Your task to perform on an android device: Search for hotels in Boston Image 0: 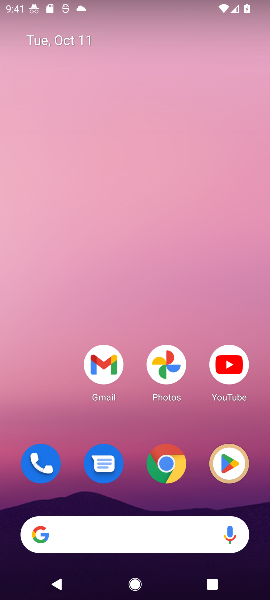
Step 0: drag from (179, 544) to (169, 214)
Your task to perform on an android device: Search for hotels in Boston Image 1: 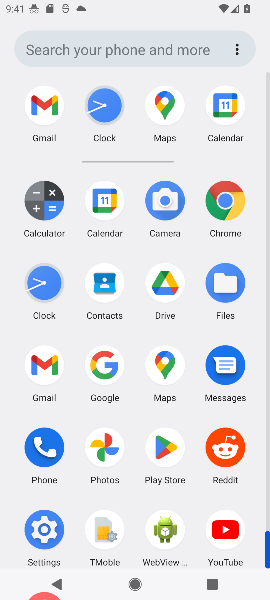
Step 1: click (98, 358)
Your task to perform on an android device: Search for hotels in Boston Image 2: 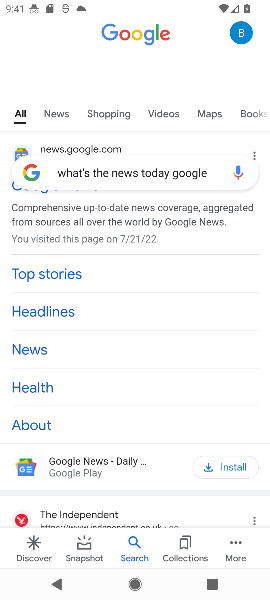
Step 2: click (147, 176)
Your task to perform on an android device: Search for hotels in Boston Image 3: 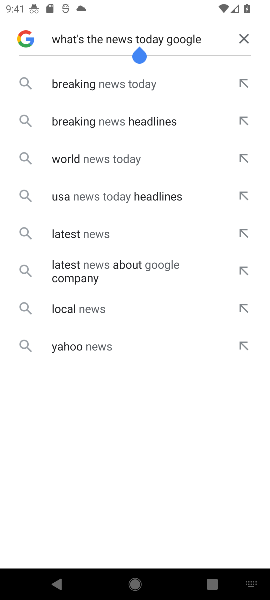
Step 3: click (243, 35)
Your task to perform on an android device: Search for hotels in Boston Image 4: 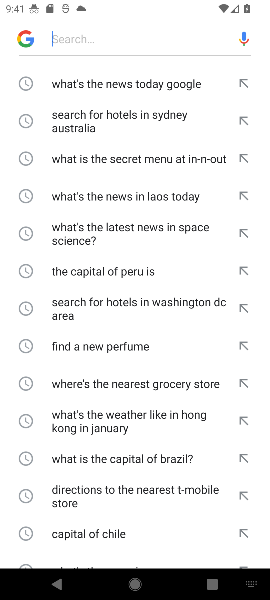
Step 4: click (139, 19)
Your task to perform on an android device: Search for hotels in Boston Image 5: 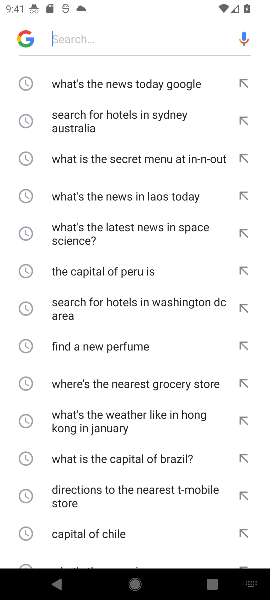
Step 5: type "Search for hotels in Boston "
Your task to perform on an android device: Search for hotels in Boston Image 6: 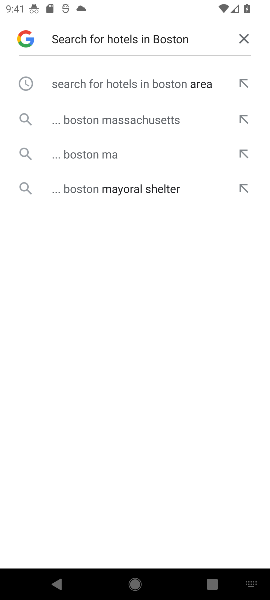
Step 6: click (108, 82)
Your task to perform on an android device: Search for hotels in Boston Image 7: 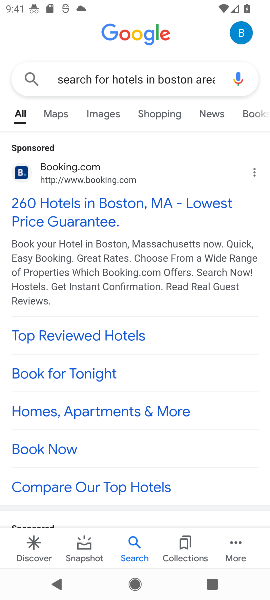
Step 7: click (134, 202)
Your task to perform on an android device: Search for hotels in Boston Image 8: 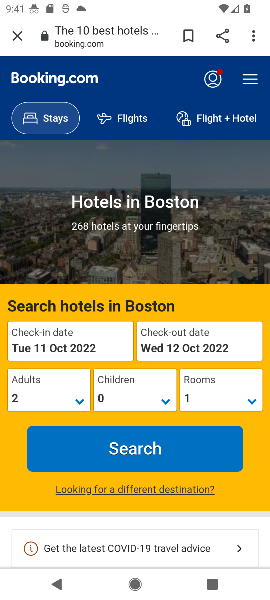
Step 8: click (150, 451)
Your task to perform on an android device: Search for hotels in Boston Image 9: 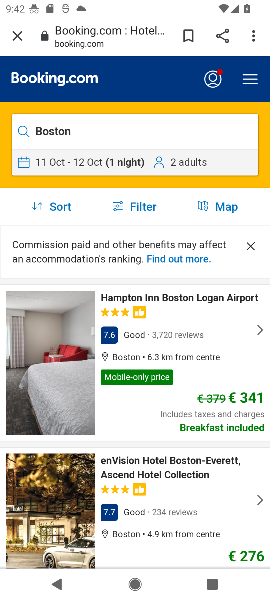
Step 9: drag from (112, 520) to (141, 140)
Your task to perform on an android device: Search for hotels in Boston Image 10: 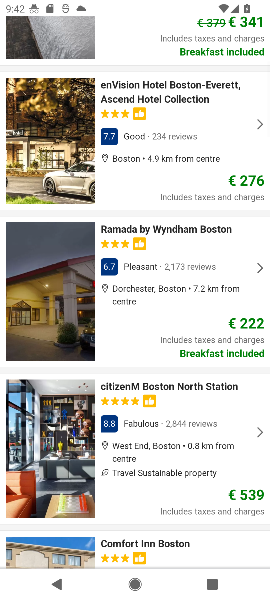
Step 10: drag from (174, 494) to (195, 99)
Your task to perform on an android device: Search for hotels in Boston Image 11: 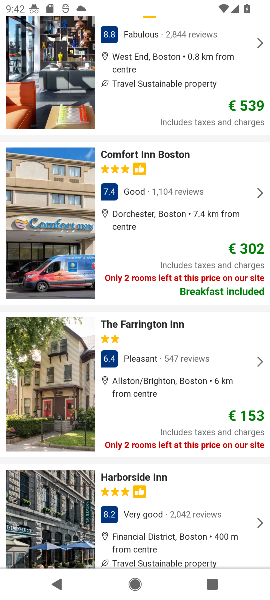
Step 11: drag from (190, 486) to (184, 192)
Your task to perform on an android device: Search for hotels in Boston Image 12: 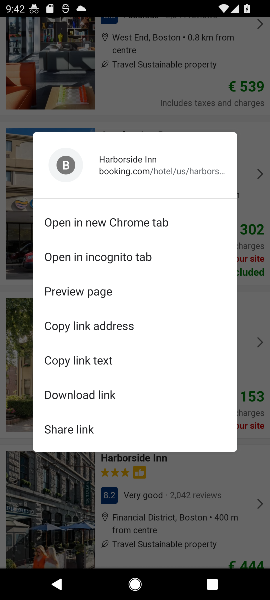
Step 12: click (170, 56)
Your task to perform on an android device: Search for hotels in Boston Image 13: 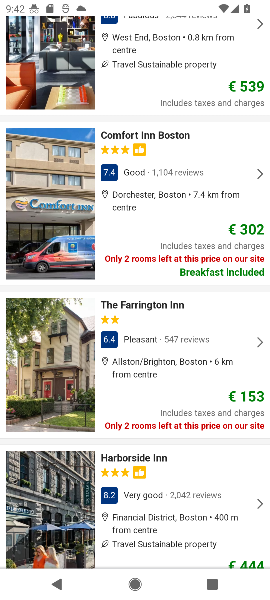
Step 13: task complete